Your task to perform on an android device: move a message to another label in the gmail app Image 0: 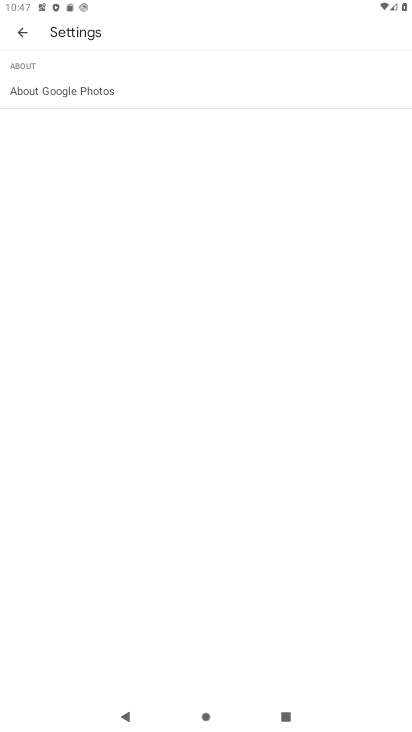
Step 0: press home button
Your task to perform on an android device: move a message to another label in the gmail app Image 1: 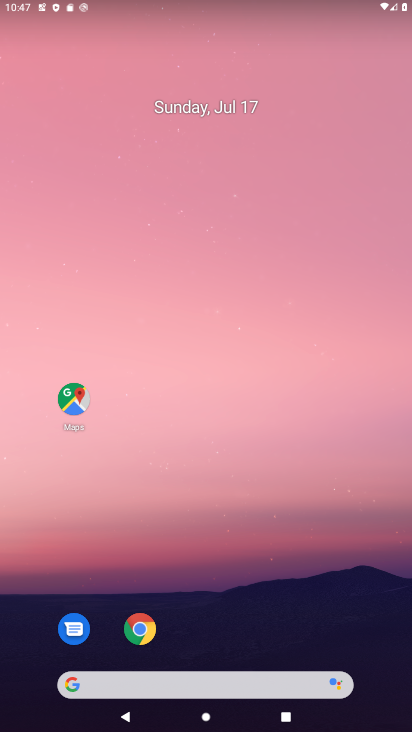
Step 1: drag from (260, 599) to (220, 139)
Your task to perform on an android device: move a message to another label in the gmail app Image 2: 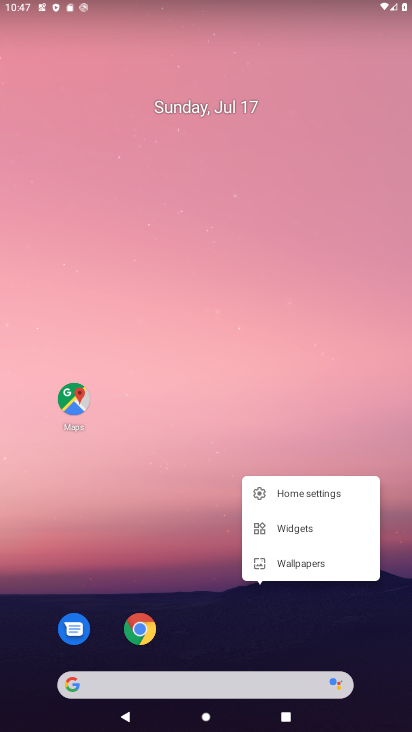
Step 2: click (173, 491)
Your task to perform on an android device: move a message to another label in the gmail app Image 3: 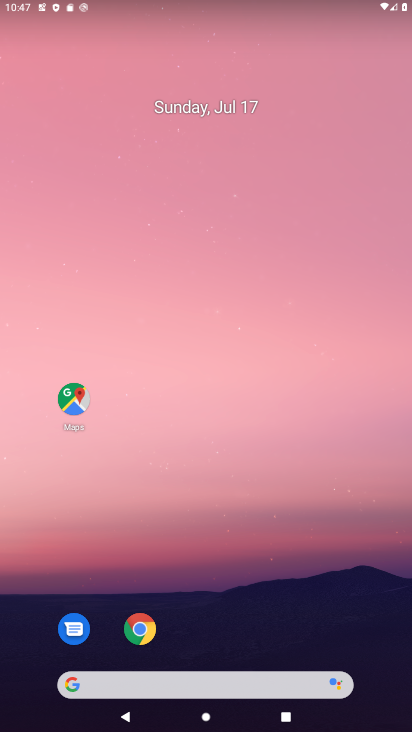
Step 3: drag from (227, 613) to (226, 342)
Your task to perform on an android device: move a message to another label in the gmail app Image 4: 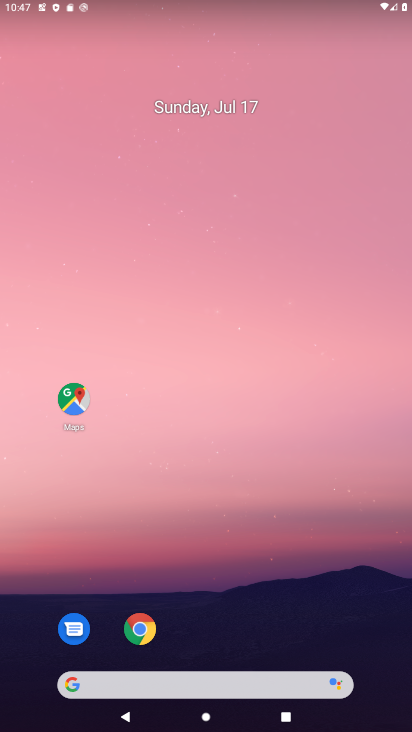
Step 4: drag from (231, 624) to (331, 8)
Your task to perform on an android device: move a message to another label in the gmail app Image 5: 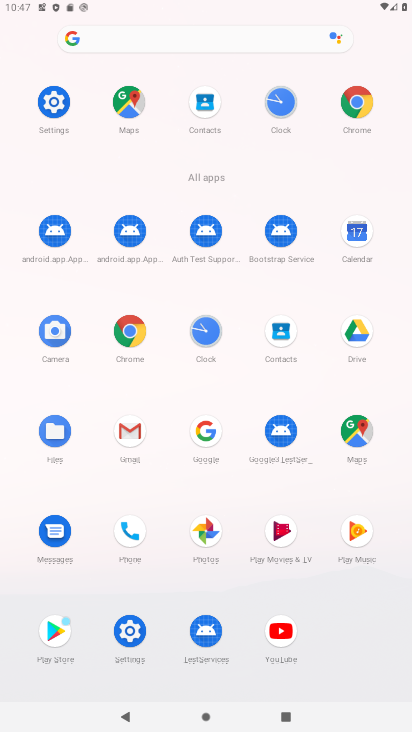
Step 5: click (124, 432)
Your task to perform on an android device: move a message to another label in the gmail app Image 6: 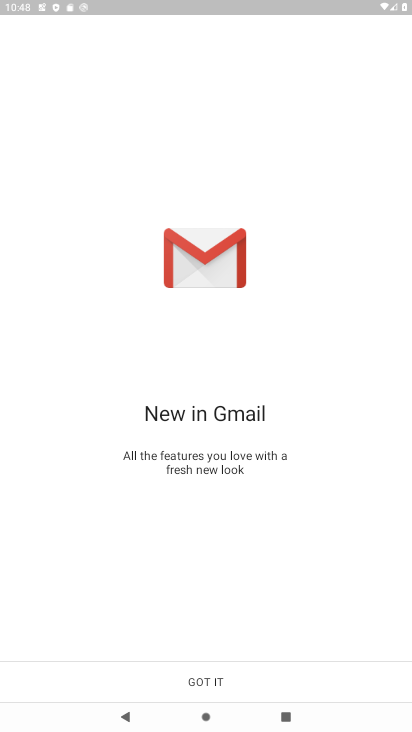
Step 6: click (276, 667)
Your task to perform on an android device: move a message to another label in the gmail app Image 7: 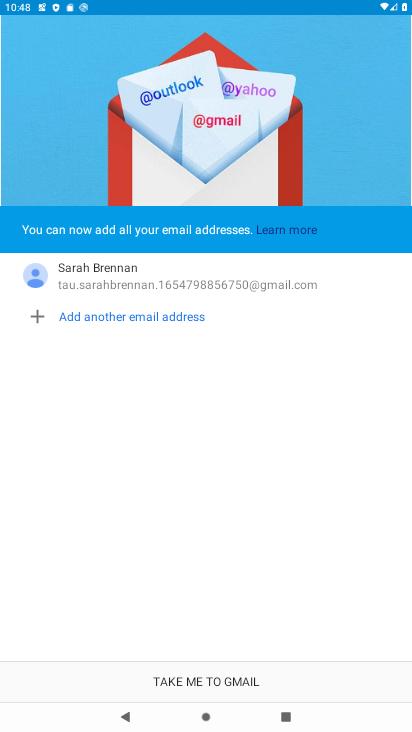
Step 7: click (248, 679)
Your task to perform on an android device: move a message to another label in the gmail app Image 8: 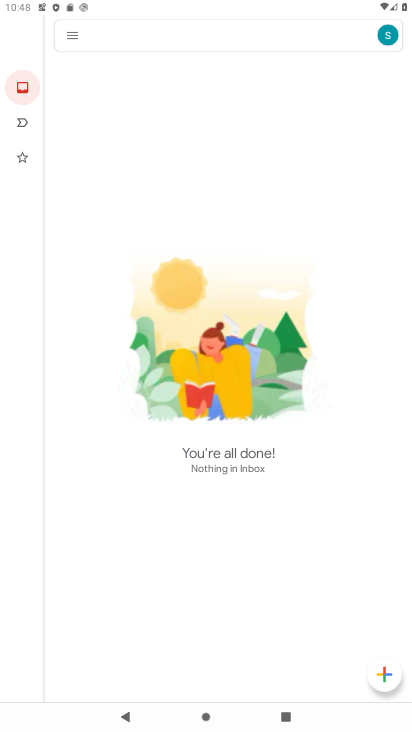
Step 8: click (64, 35)
Your task to perform on an android device: move a message to another label in the gmail app Image 9: 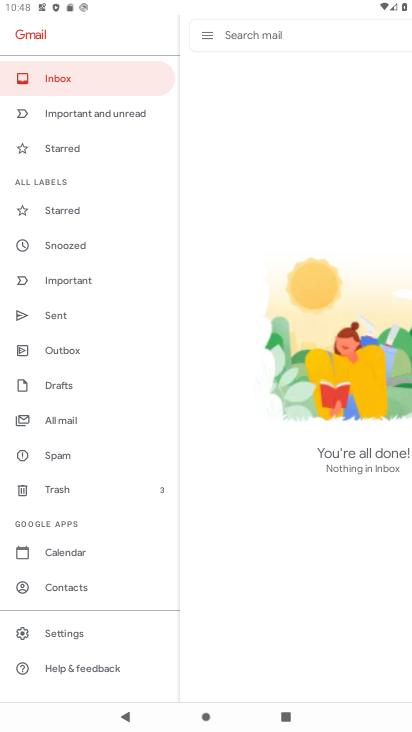
Step 9: click (44, 431)
Your task to perform on an android device: move a message to another label in the gmail app Image 10: 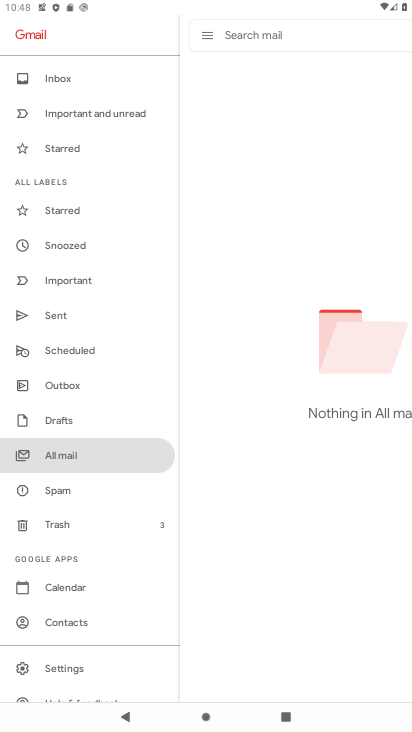
Step 10: task complete